Your task to perform on an android device: refresh tabs in the chrome app Image 0: 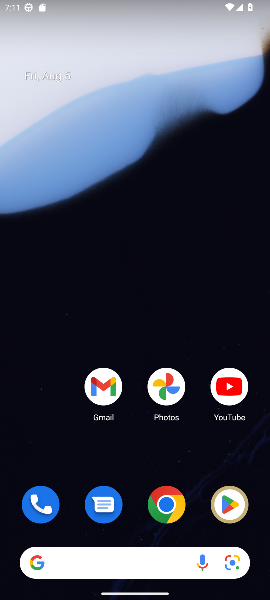
Step 0: click (166, 505)
Your task to perform on an android device: refresh tabs in the chrome app Image 1: 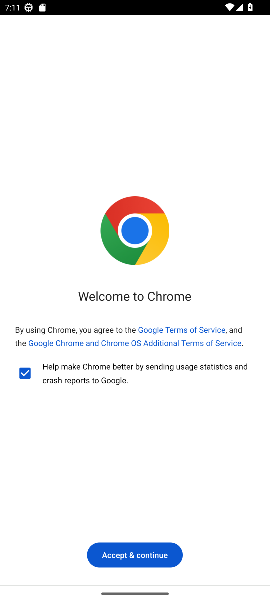
Step 1: click (108, 553)
Your task to perform on an android device: refresh tabs in the chrome app Image 2: 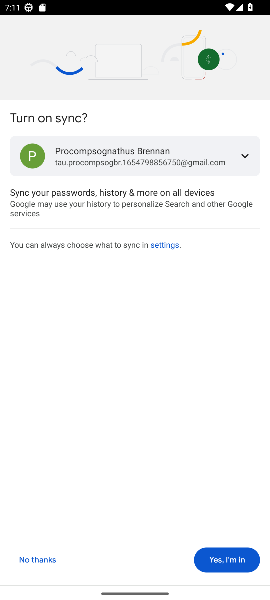
Step 2: click (244, 561)
Your task to perform on an android device: refresh tabs in the chrome app Image 3: 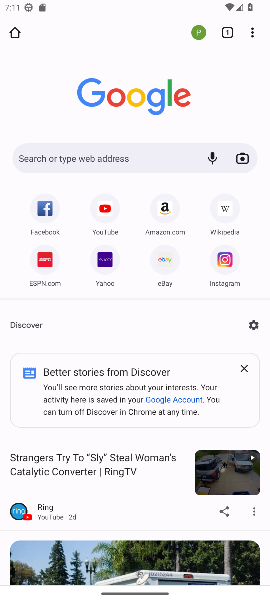
Step 3: click (251, 36)
Your task to perform on an android device: refresh tabs in the chrome app Image 4: 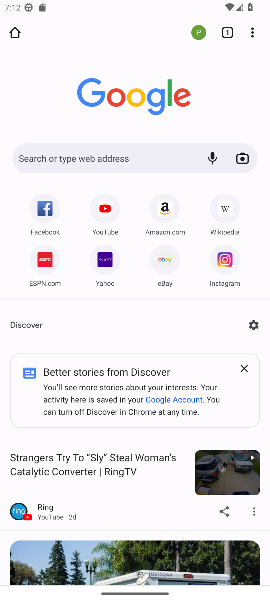
Step 4: task complete